Your task to perform on an android device: Is it going to rain today? Image 0: 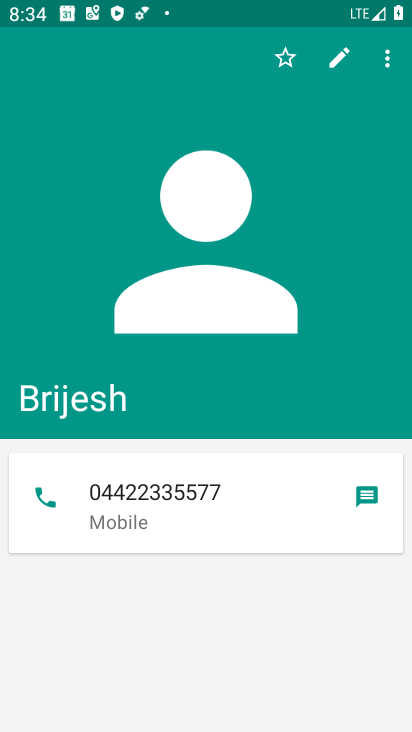
Step 0: press home button
Your task to perform on an android device: Is it going to rain today? Image 1: 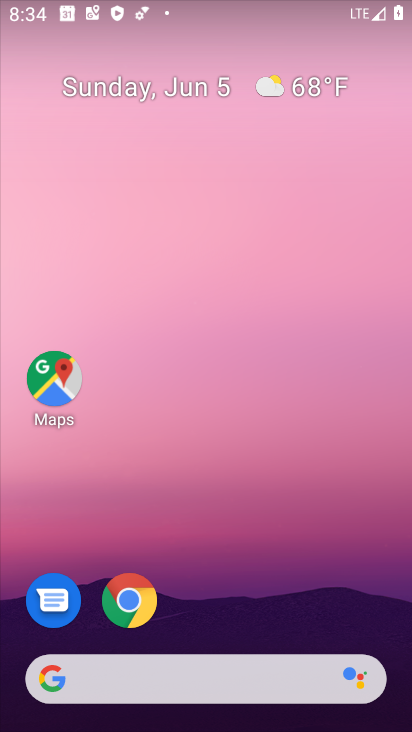
Step 1: click (278, 86)
Your task to perform on an android device: Is it going to rain today? Image 2: 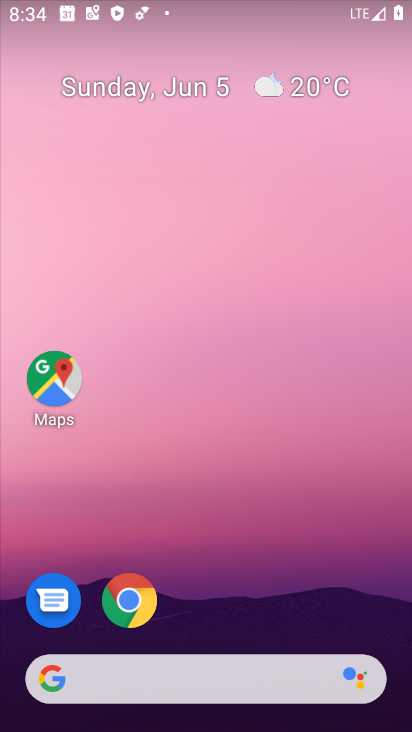
Step 2: click (278, 88)
Your task to perform on an android device: Is it going to rain today? Image 3: 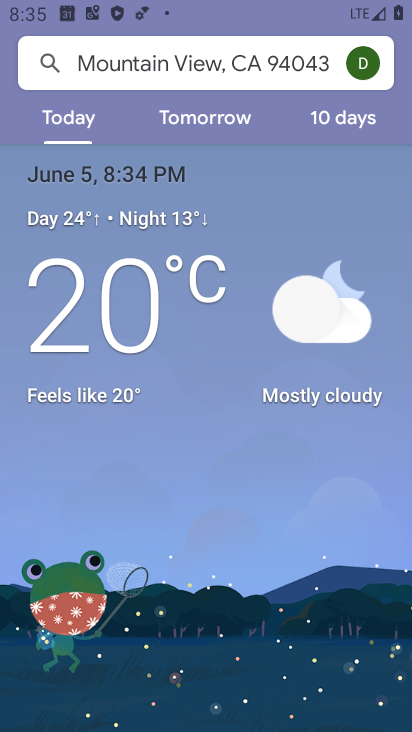
Step 3: task complete